Your task to perform on an android device: empty trash in the gmail app Image 0: 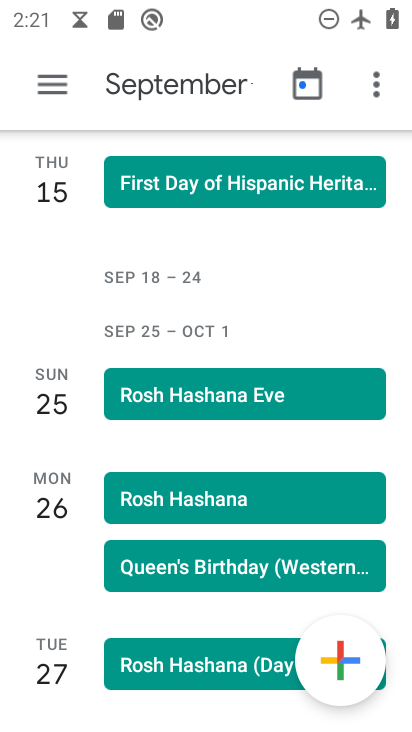
Step 0: press home button
Your task to perform on an android device: empty trash in the gmail app Image 1: 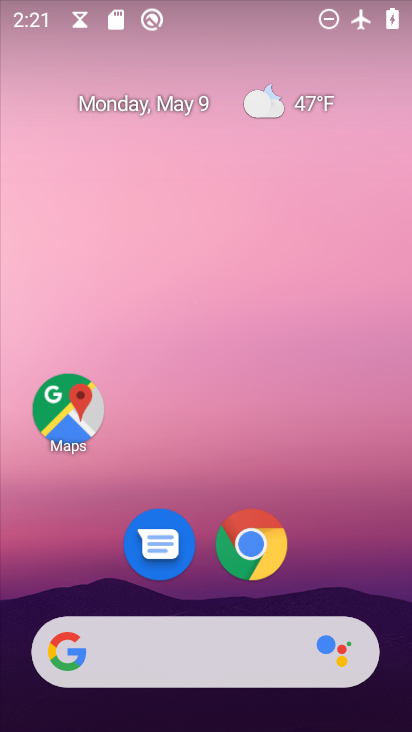
Step 1: drag from (366, 542) to (411, 189)
Your task to perform on an android device: empty trash in the gmail app Image 2: 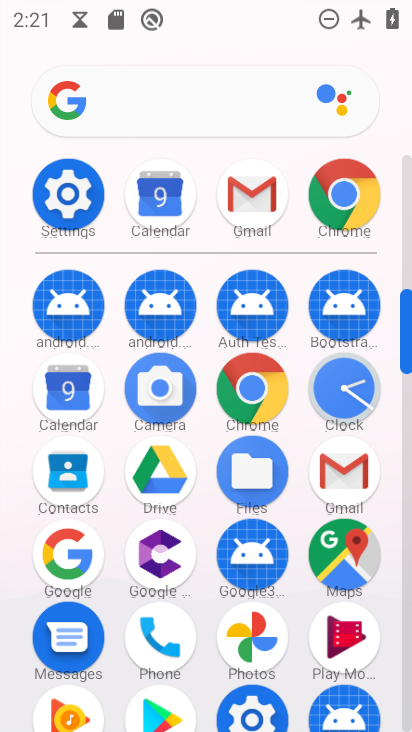
Step 2: click (266, 185)
Your task to perform on an android device: empty trash in the gmail app Image 3: 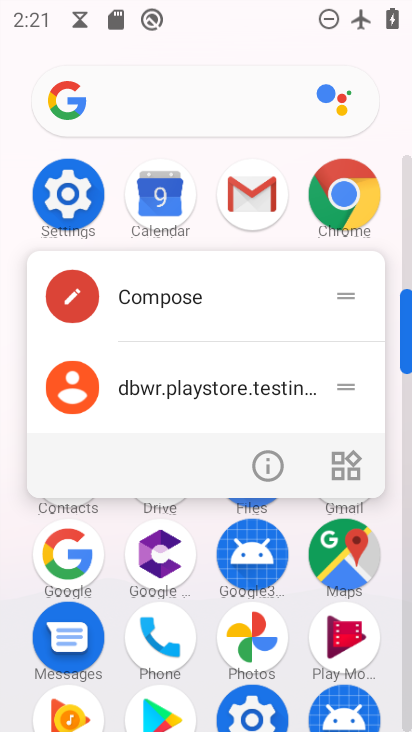
Step 3: click (266, 184)
Your task to perform on an android device: empty trash in the gmail app Image 4: 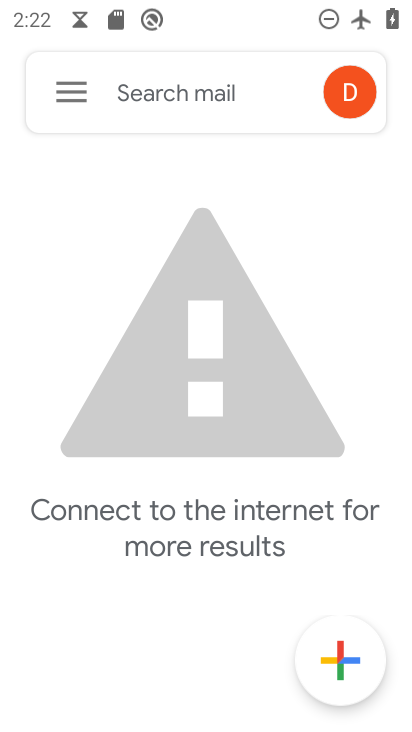
Step 4: task complete